Your task to perform on an android device: Go to Google Image 0: 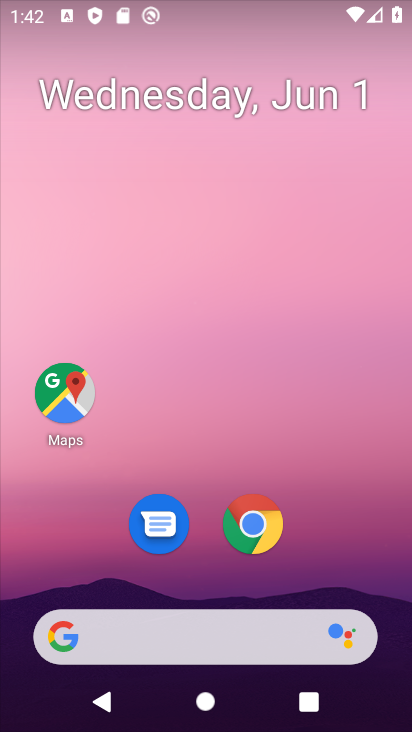
Step 0: drag from (310, 541) to (296, 97)
Your task to perform on an android device: Go to Google Image 1: 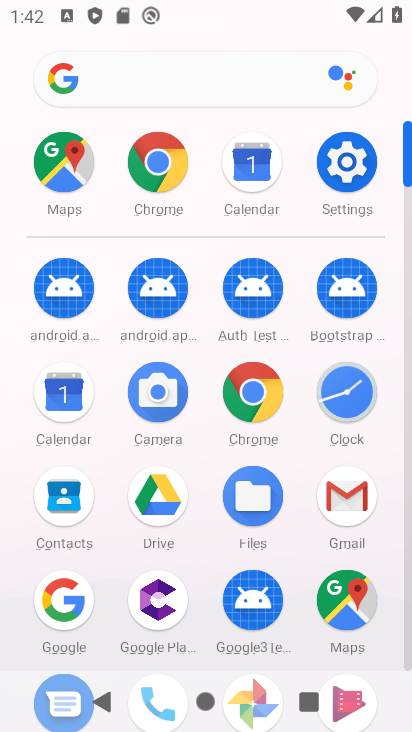
Step 1: click (69, 588)
Your task to perform on an android device: Go to Google Image 2: 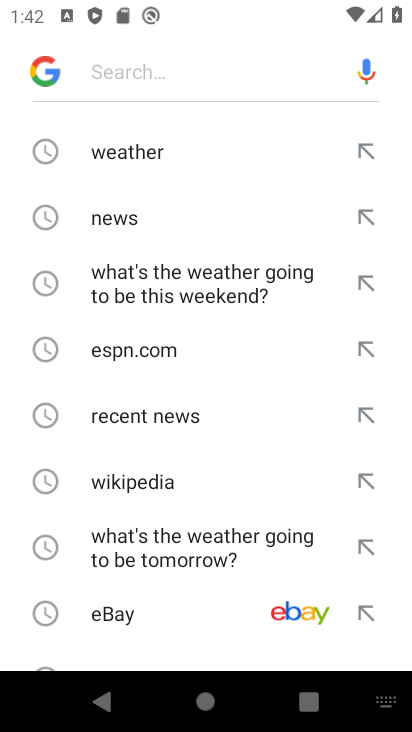
Step 2: click (41, 74)
Your task to perform on an android device: Go to Google Image 3: 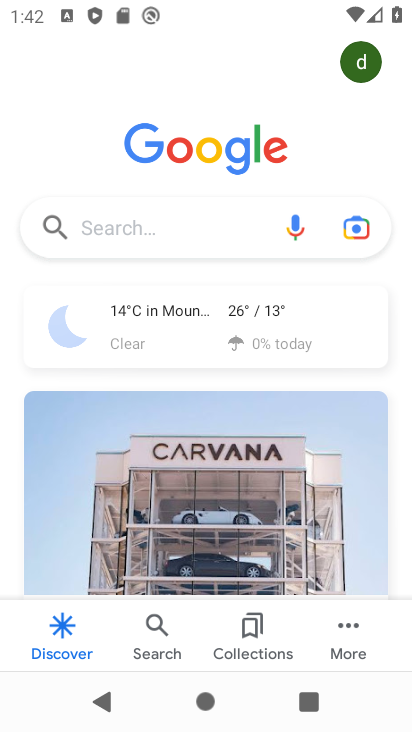
Step 3: task complete